Your task to perform on an android device: check android version Image 0: 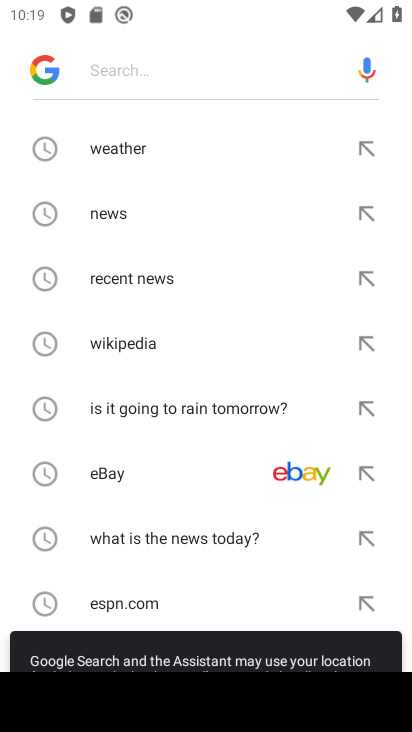
Step 0: press home button
Your task to perform on an android device: check android version Image 1: 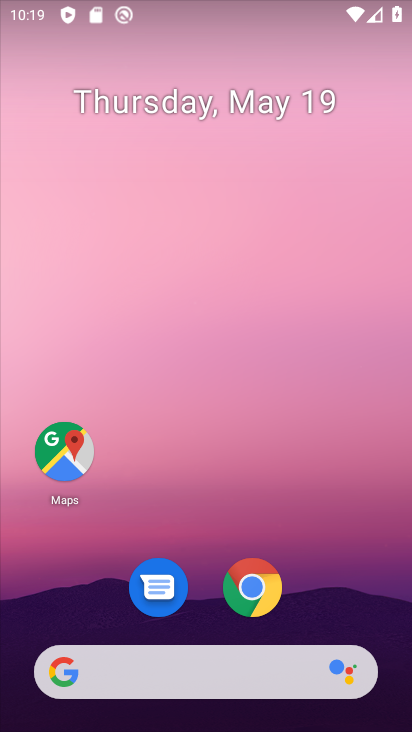
Step 1: drag from (294, 590) to (235, 64)
Your task to perform on an android device: check android version Image 2: 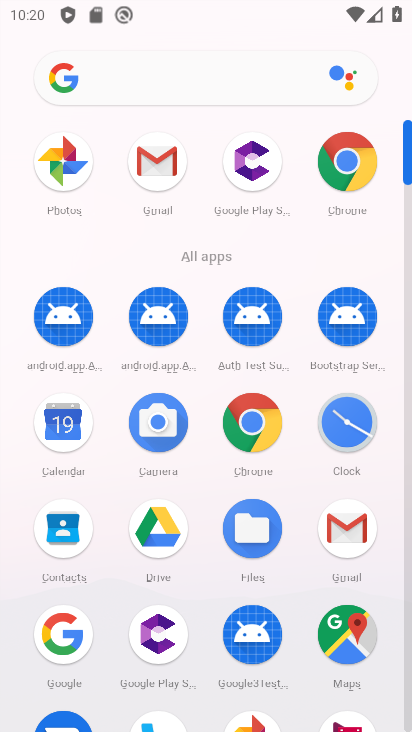
Step 2: drag from (162, 606) to (228, 235)
Your task to perform on an android device: check android version Image 3: 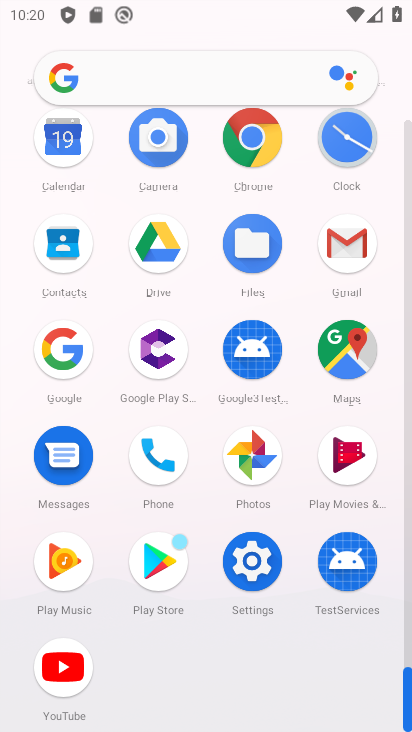
Step 3: click (264, 575)
Your task to perform on an android device: check android version Image 4: 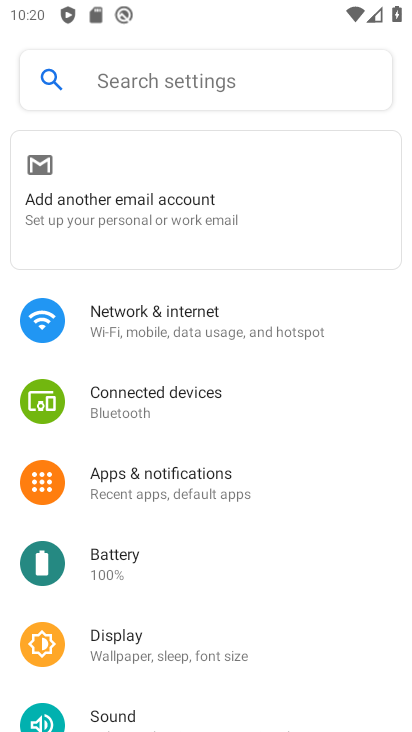
Step 4: drag from (265, 606) to (309, 297)
Your task to perform on an android device: check android version Image 5: 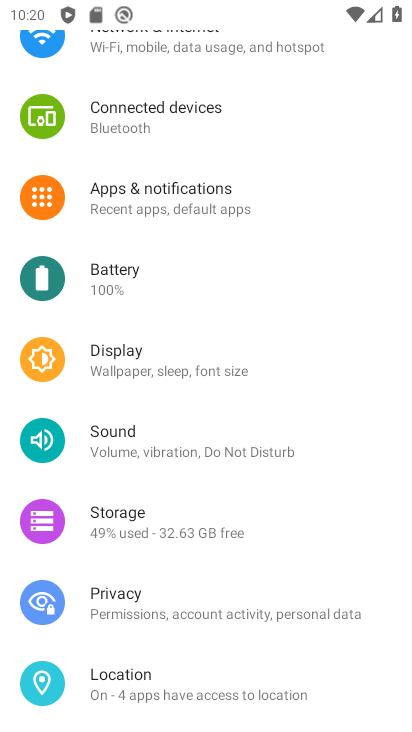
Step 5: drag from (251, 664) to (249, 169)
Your task to perform on an android device: check android version Image 6: 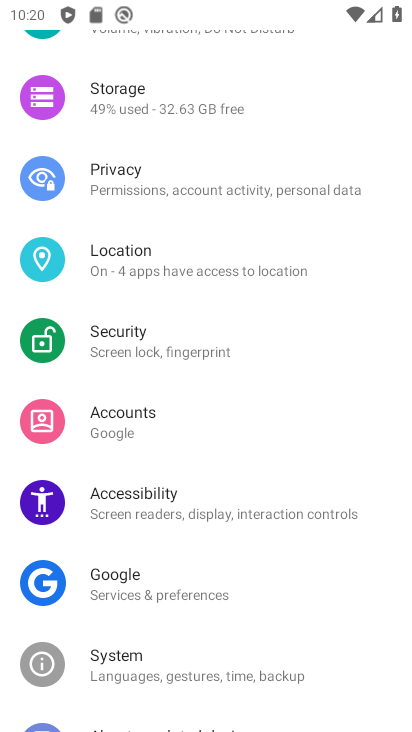
Step 6: drag from (211, 676) to (237, 246)
Your task to perform on an android device: check android version Image 7: 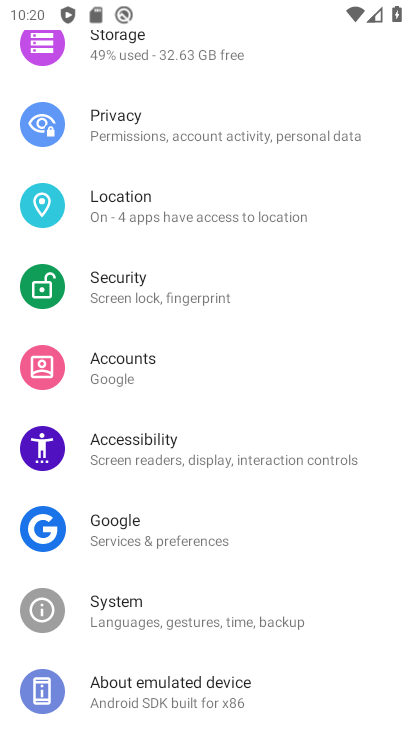
Step 7: click (219, 702)
Your task to perform on an android device: check android version Image 8: 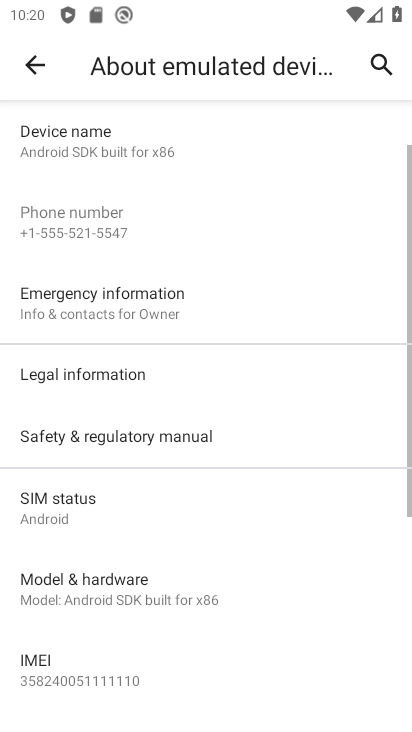
Step 8: task complete